Your task to perform on an android device: Do I have any events today? Image 0: 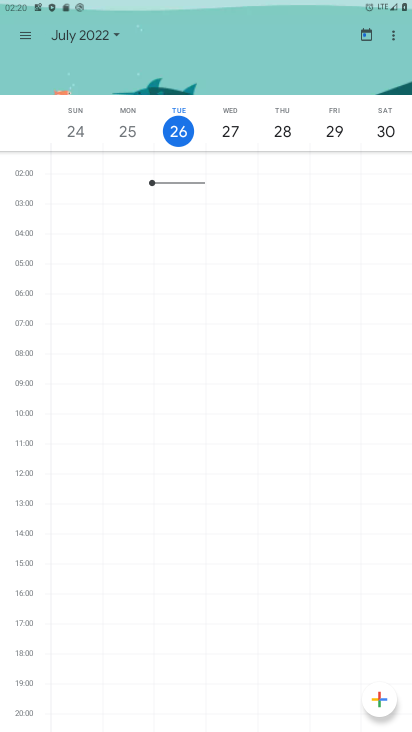
Step 0: press home button
Your task to perform on an android device: Do I have any events today? Image 1: 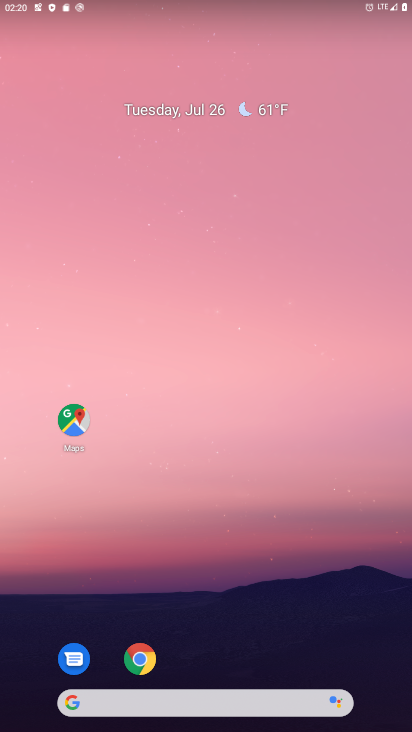
Step 1: drag from (275, 618) to (247, 46)
Your task to perform on an android device: Do I have any events today? Image 2: 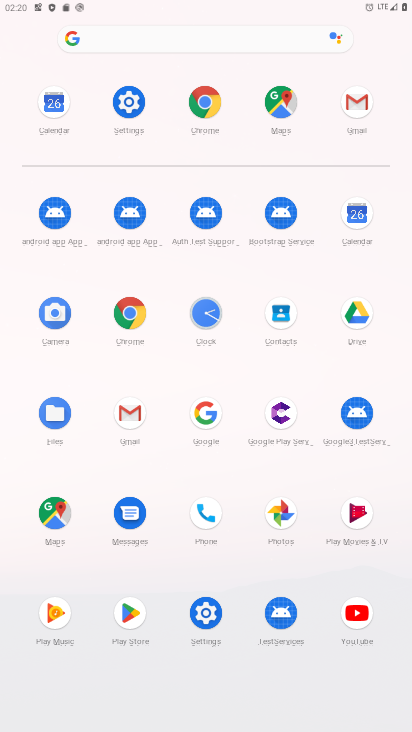
Step 2: click (346, 221)
Your task to perform on an android device: Do I have any events today? Image 3: 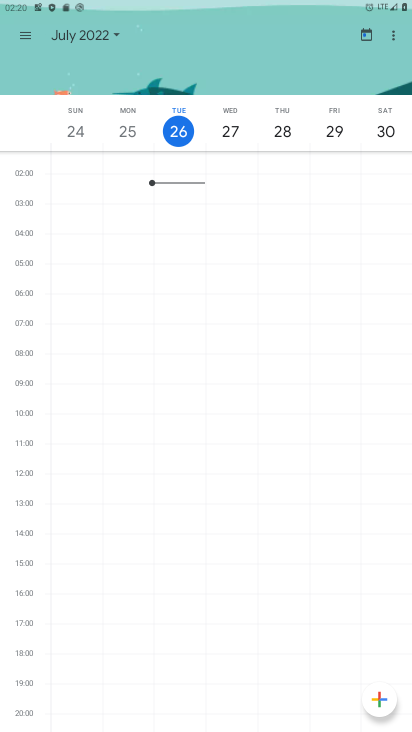
Step 3: task complete